Your task to perform on an android device: Clear all items from cart on newegg. Image 0: 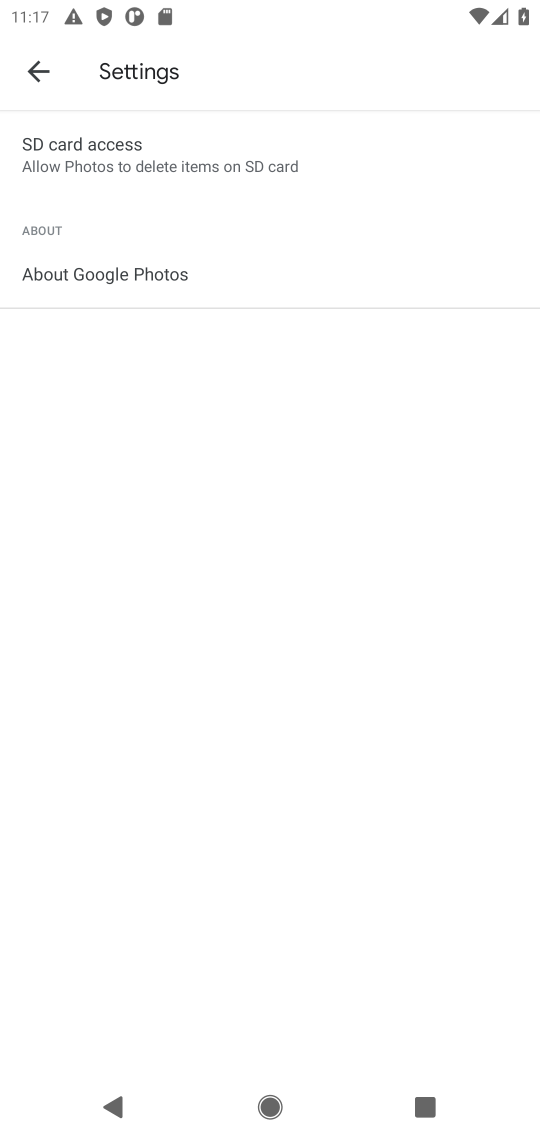
Step 0: press home button
Your task to perform on an android device: Clear all items from cart on newegg. Image 1: 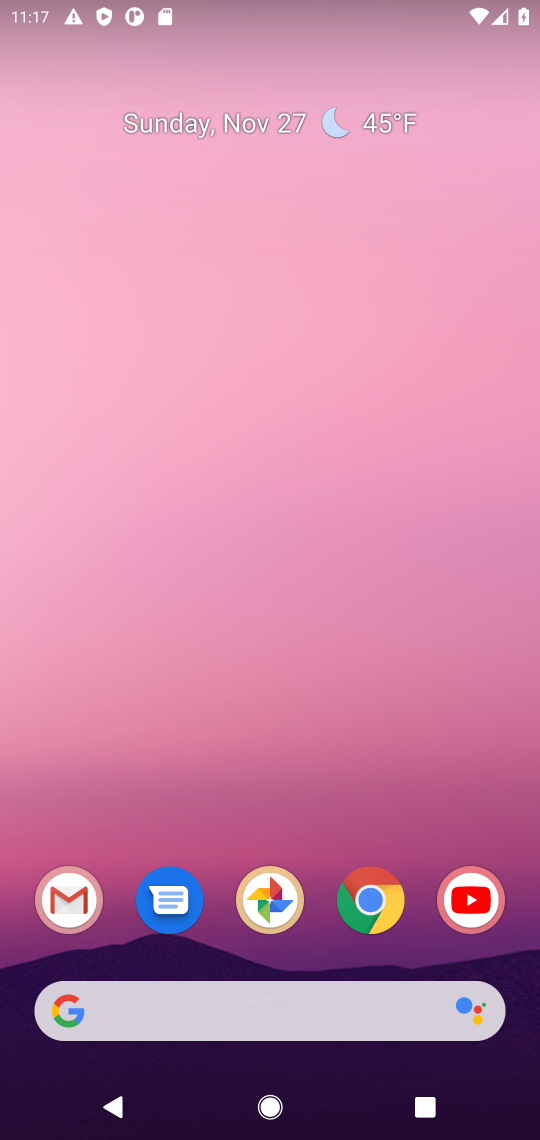
Step 1: click (378, 942)
Your task to perform on an android device: Clear all items from cart on newegg. Image 2: 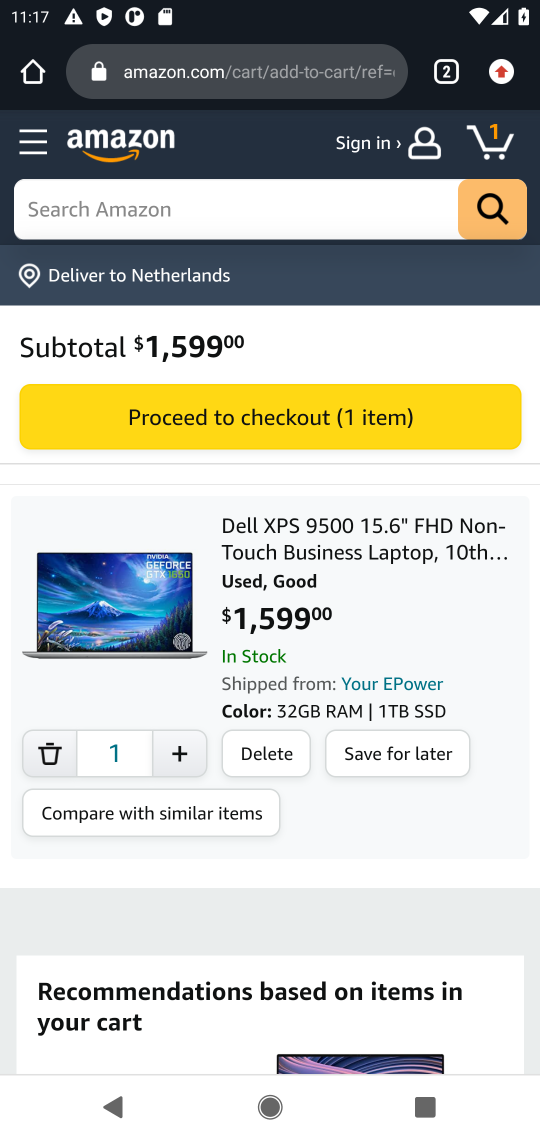
Step 2: click (178, 76)
Your task to perform on an android device: Clear all items from cart on newegg. Image 3: 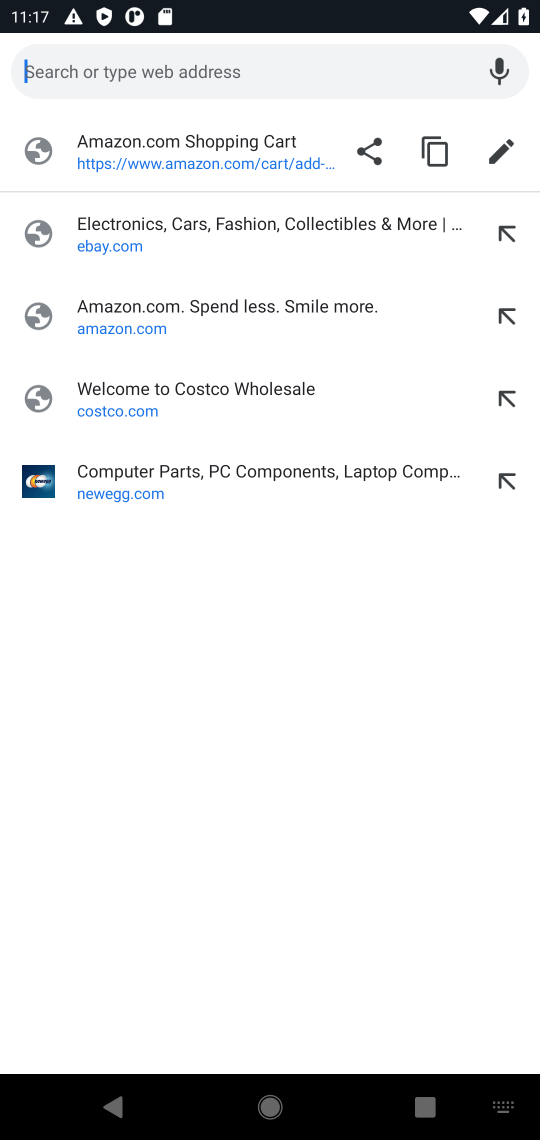
Step 3: click (110, 496)
Your task to perform on an android device: Clear all items from cart on newegg. Image 4: 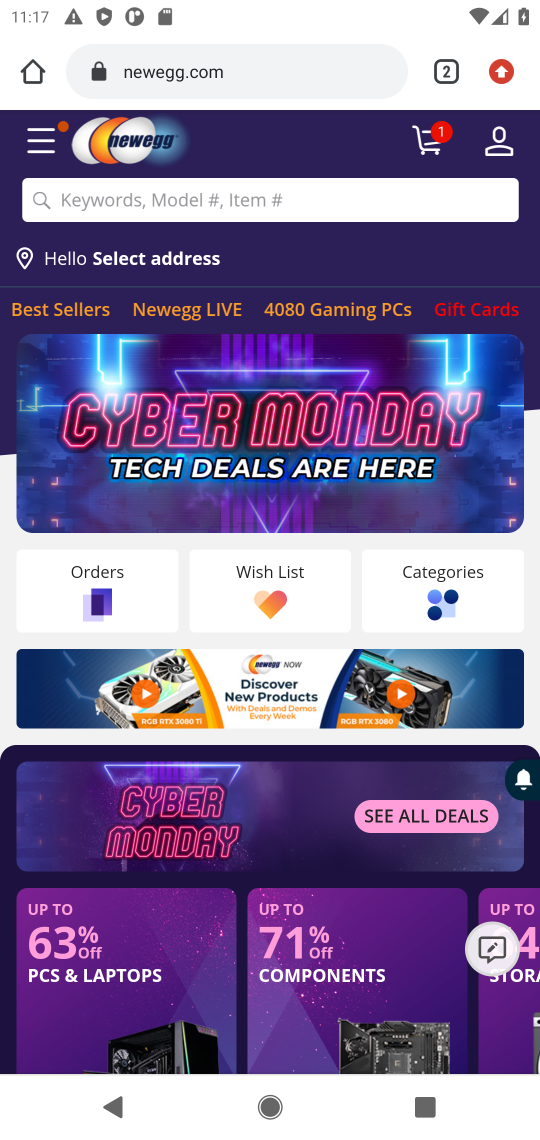
Step 4: click (418, 152)
Your task to perform on an android device: Clear all items from cart on newegg. Image 5: 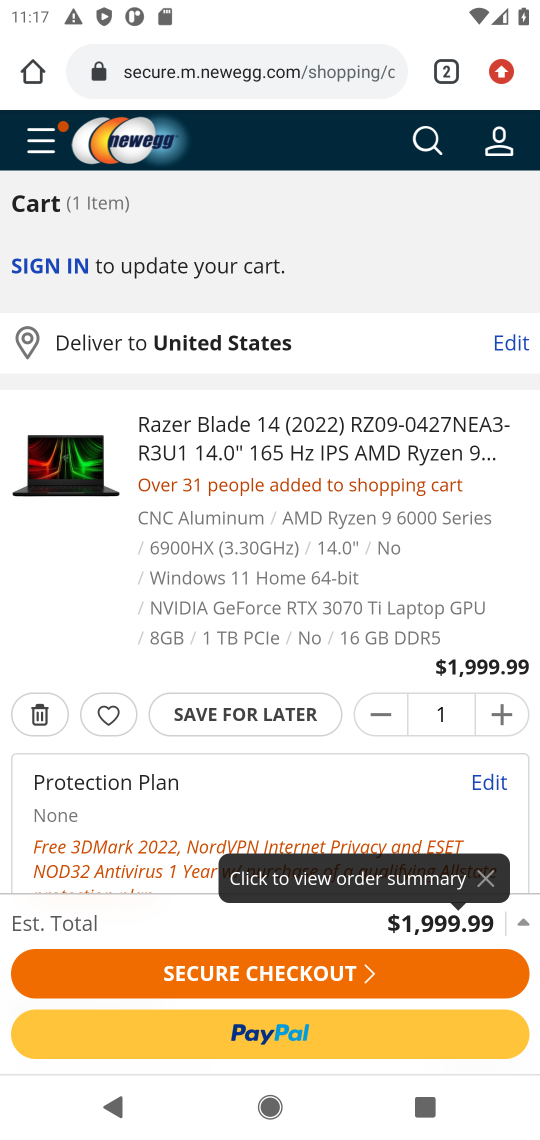
Step 5: click (47, 716)
Your task to perform on an android device: Clear all items from cart on newegg. Image 6: 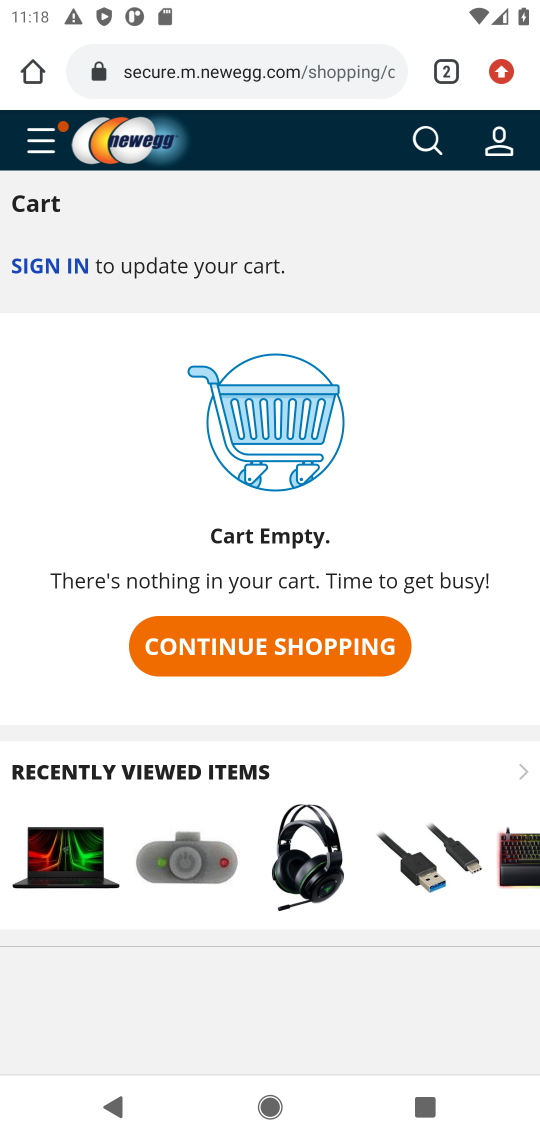
Step 6: task complete